Your task to perform on an android device: change the clock display to analog Image 0: 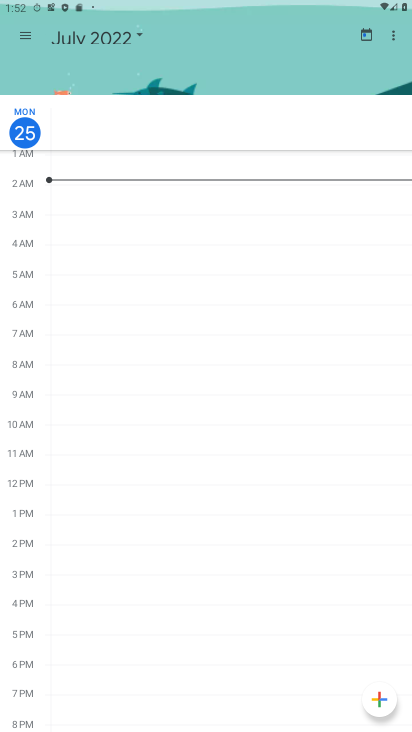
Step 0: press home button
Your task to perform on an android device: change the clock display to analog Image 1: 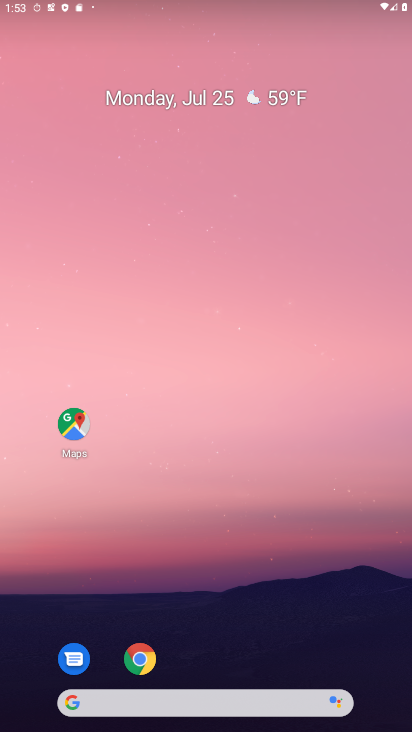
Step 1: drag from (223, 645) to (71, 18)
Your task to perform on an android device: change the clock display to analog Image 2: 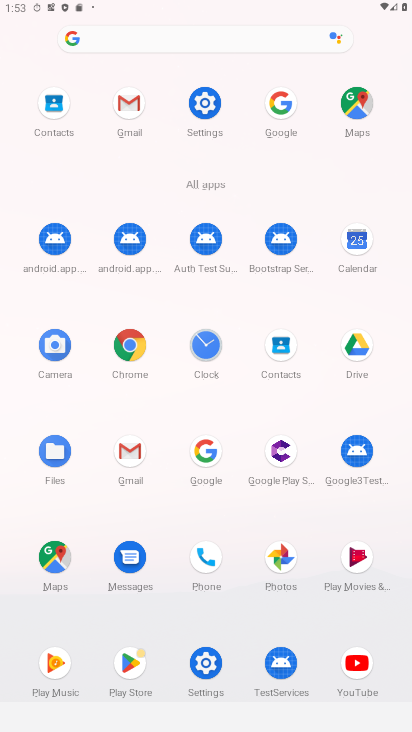
Step 2: click (209, 345)
Your task to perform on an android device: change the clock display to analog Image 3: 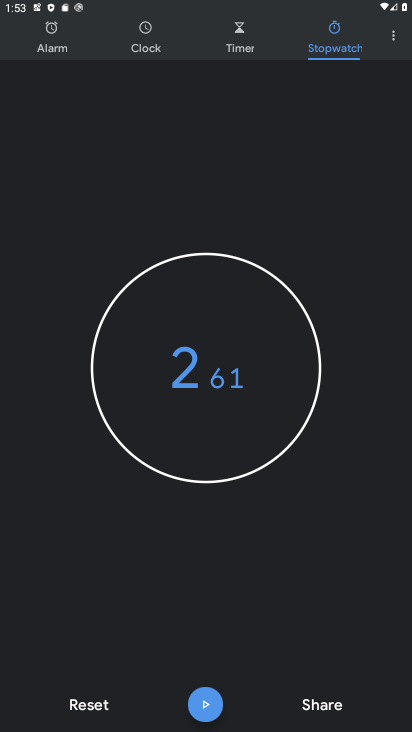
Step 3: click (388, 38)
Your task to perform on an android device: change the clock display to analog Image 4: 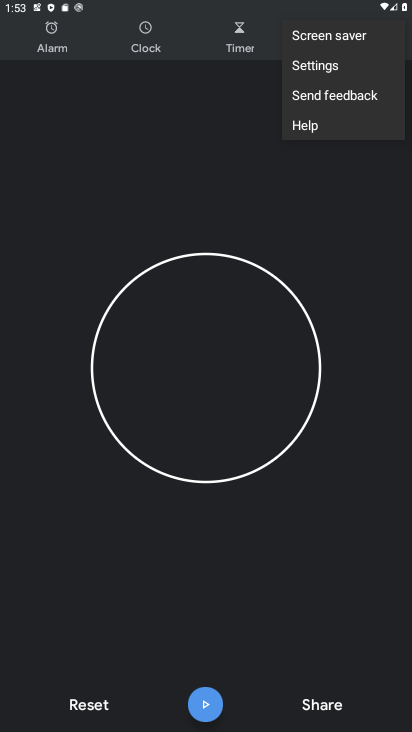
Step 4: click (319, 62)
Your task to perform on an android device: change the clock display to analog Image 5: 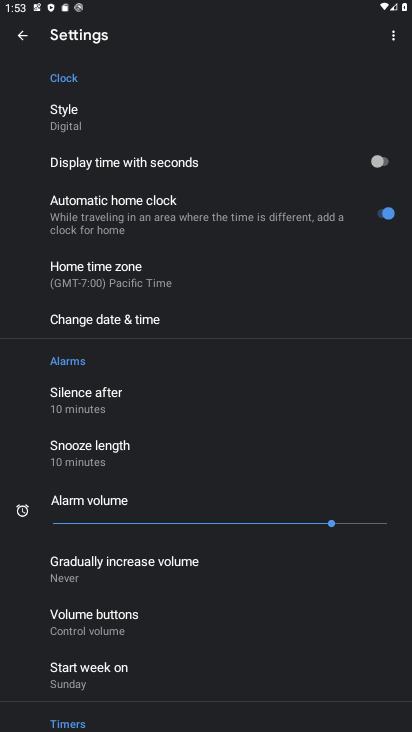
Step 5: click (79, 130)
Your task to perform on an android device: change the clock display to analog Image 6: 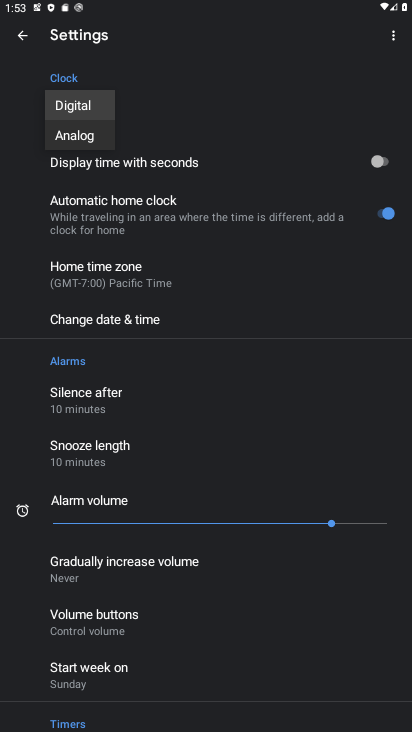
Step 6: click (86, 145)
Your task to perform on an android device: change the clock display to analog Image 7: 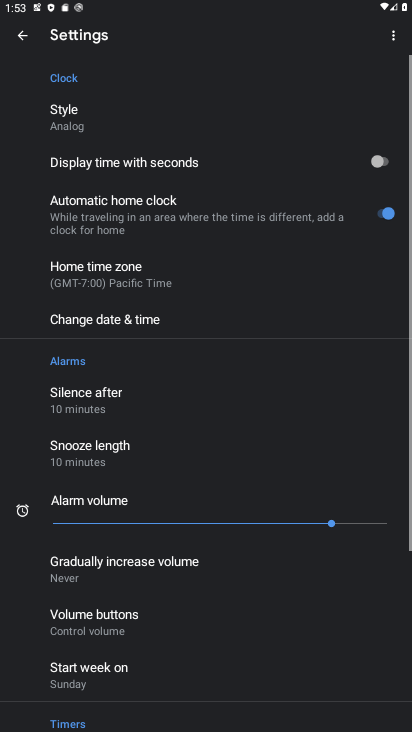
Step 7: task complete